Your task to perform on an android device: see sites visited before in the chrome app Image 0: 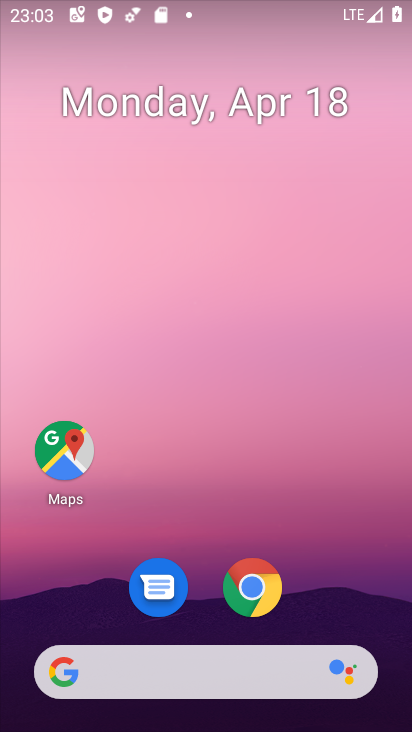
Step 0: drag from (346, 596) to (338, 5)
Your task to perform on an android device: see sites visited before in the chrome app Image 1: 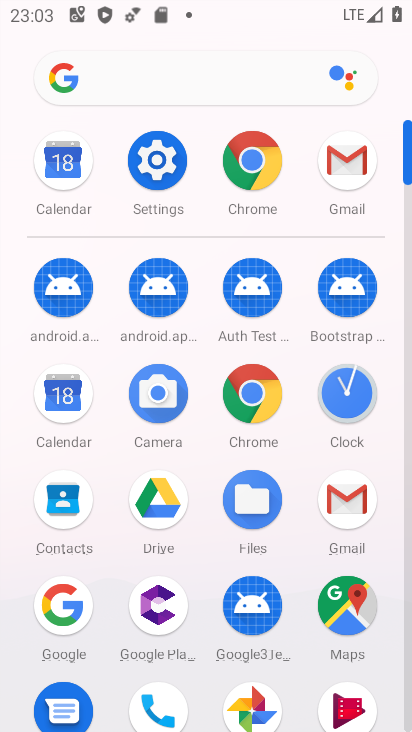
Step 1: click (255, 387)
Your task to perform on an android device: see sites visited before in the chrome app Image 2: 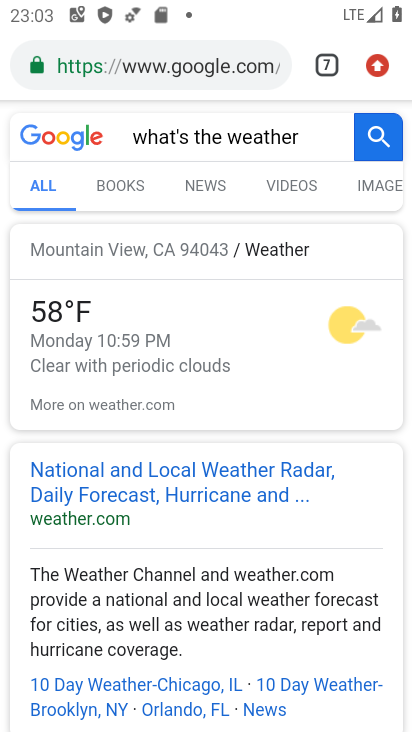
Step 2: click (377, 66)
Your task to perform on an android device: see sites visited before in the chrome app Image 3: 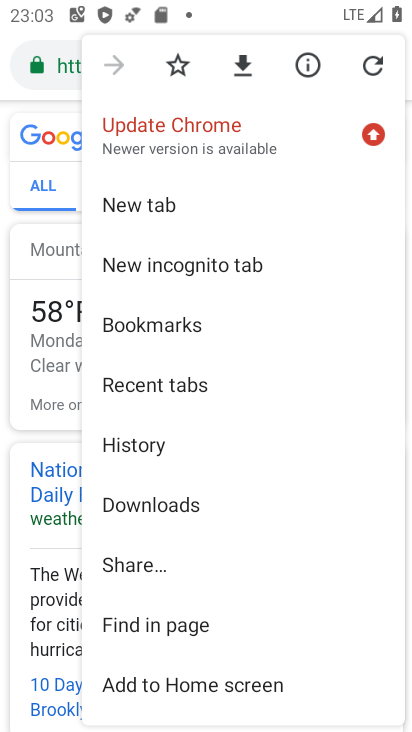
Step 3: click (141, 390)
Your task to perform on an android device: see sites visited before in the chrome app Image 4: 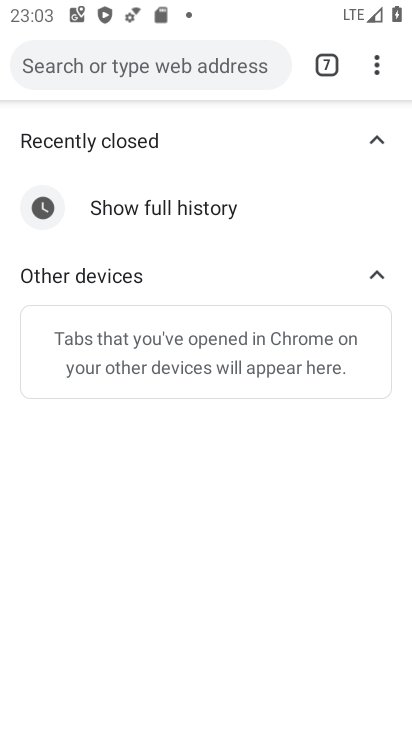
Step 4: click (155, 197)
Your task to perform on an android device: see sites visited before in the chrome app Image 5: 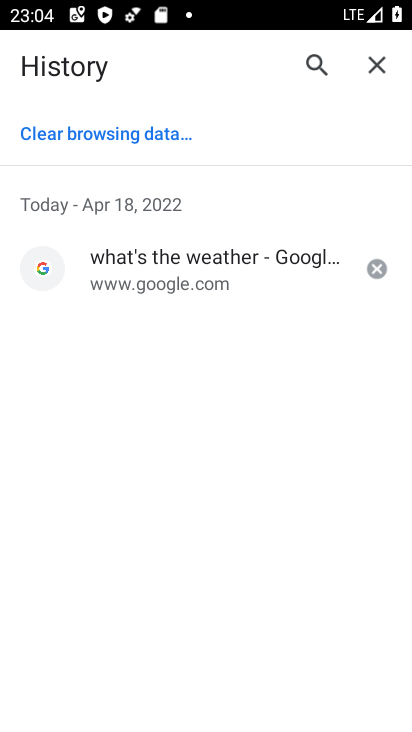
Step 5: task complete